Your task to perform on an android device: open device folders in google photos Image 0: 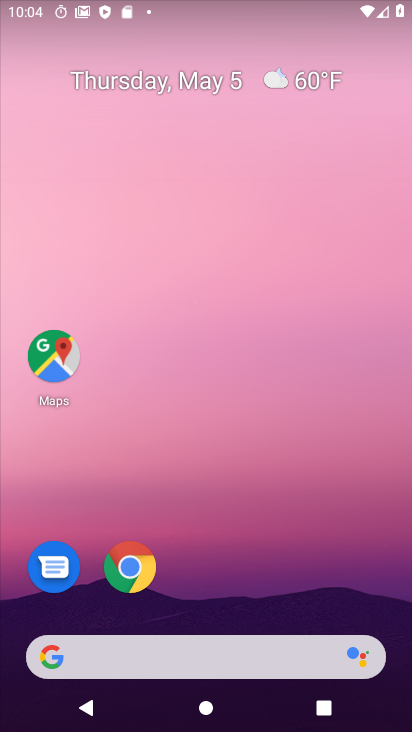
Step 0: drag from (361, 545) to (336, 20)
Your task to perform on an android device: open device folders in google photos Image 1: 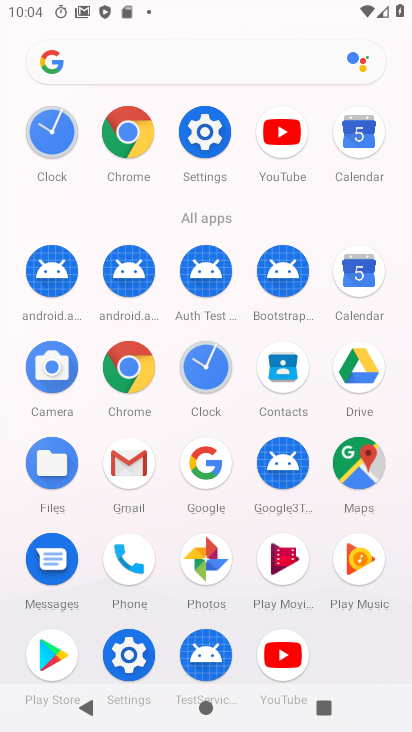
Step 1: click (207, 561)
Your task to perform on an android device: open device folders in google photos Image 2: 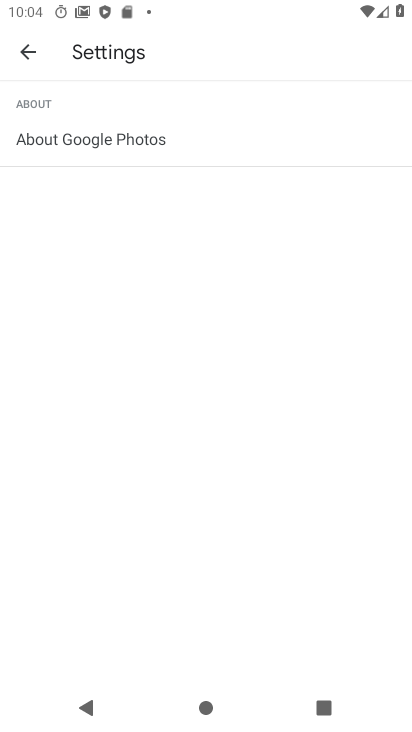
Step 2: click (36, 56)
Your task to perform on an android device: open device folders in google photos Image 3: 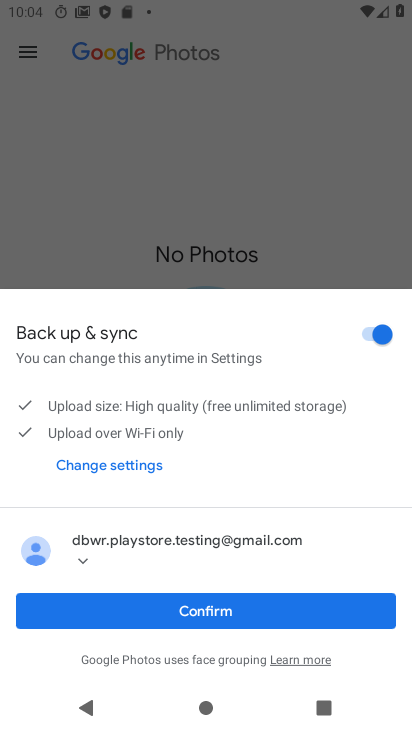
Step 3: click (233, 610)
Your task to perform on an android device: open device folders in google photos Image 4: 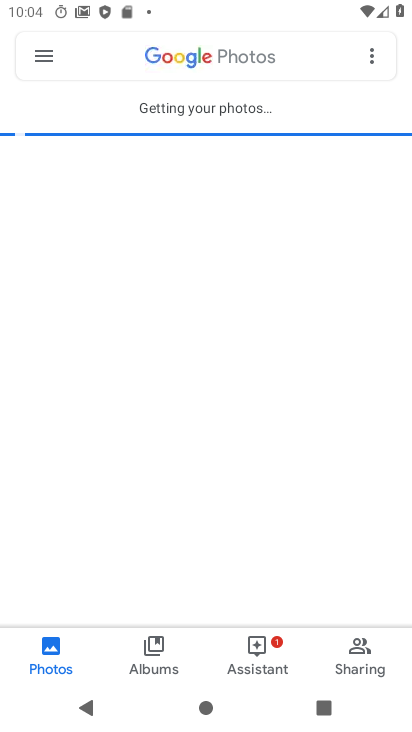
Step 4: click (41, 65)
Your task to perform on an android device: open device folders in google photos Image 5: 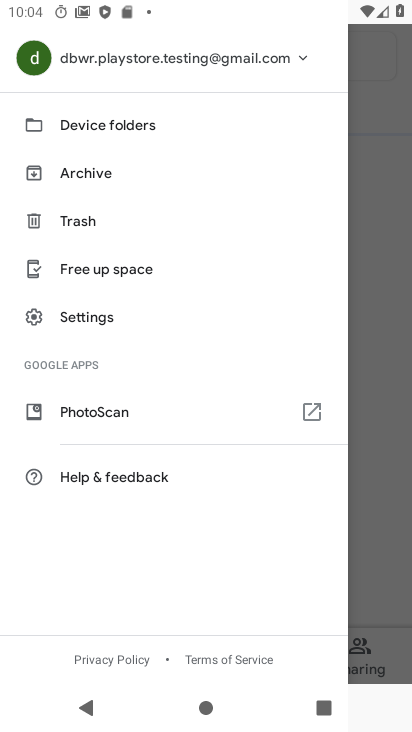
Step 5: click (55, 124)
Your task to perform on an android device: open device folders in google photos Image 6: 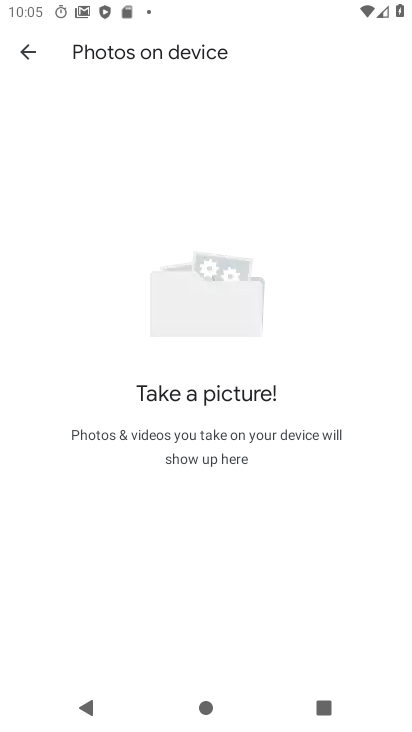
Step 6: task complete